Your task to perform on an android device: Open calendar and show me the fourth week of next month Image 0: 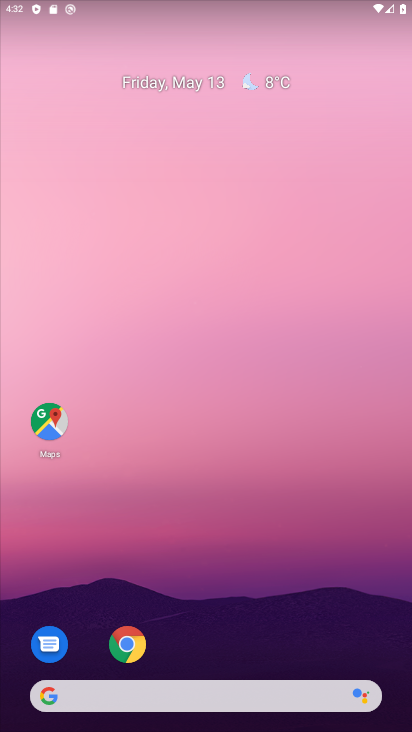
Step 0: drag from (166, 686) to (288, 165)
Your task to perform on an android device: Open calendar and show me the fourth week of next month Image 1: 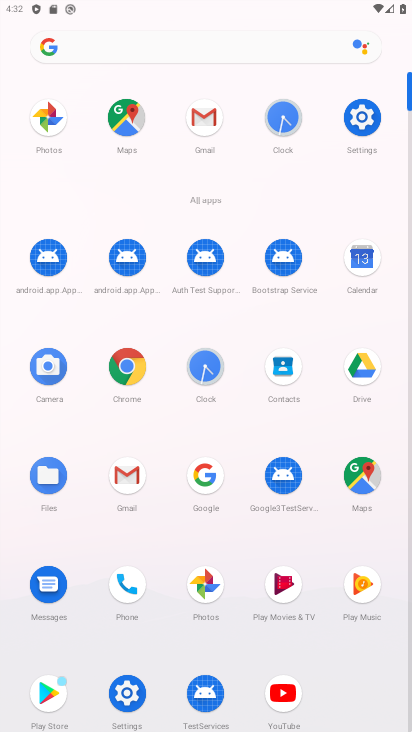
Step 1: click (355, 267)
Your task to perform on an android device: Open calendar and show me the fourth week of next month Image 2: 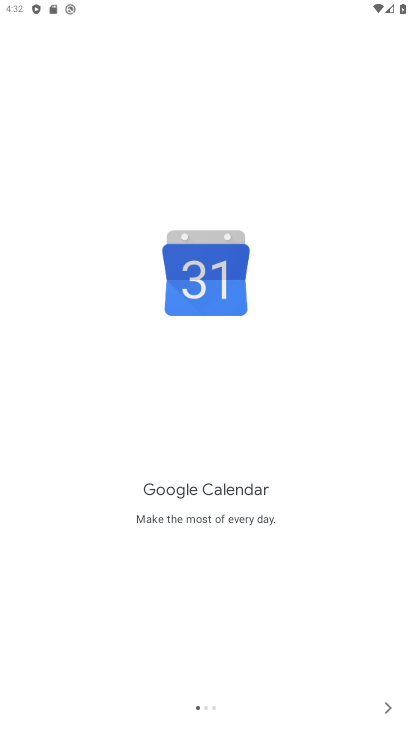
Step 2: click (391, 708)
Your task to perform on an android device: Open calendar and show me the fourth week of next month Image 3: 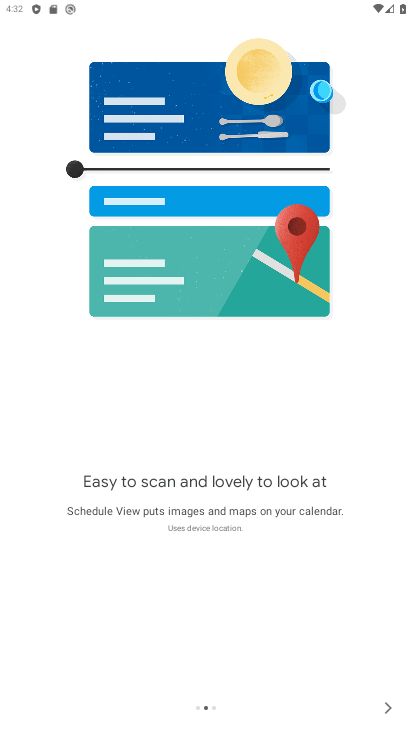
Step 3: click (387, 704)
Your task to perform on an android device: Open calendar and show me the fourth week of next month Image 4: 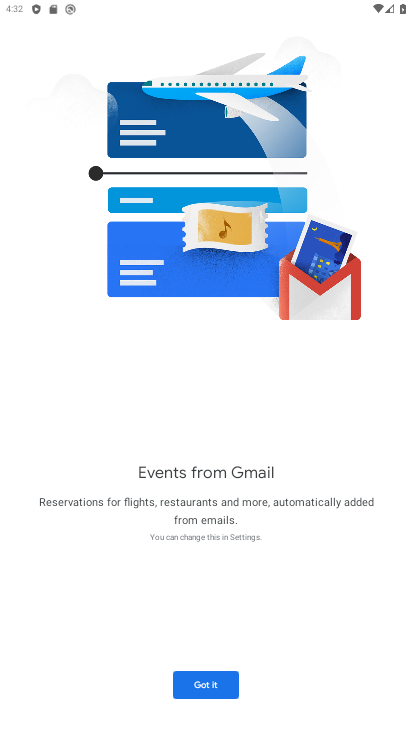
Step 4: click (208, 688)
Your task to perform on an android device: Open calendar and show me the fourth week of next month Image 5: 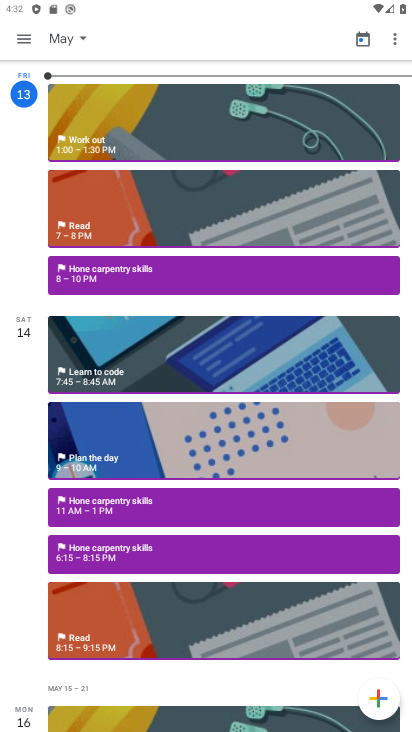
Step 5: click (55, 45)
Your task to perform on an android device: Open calendar and show me the fourth week of next month Image 6: 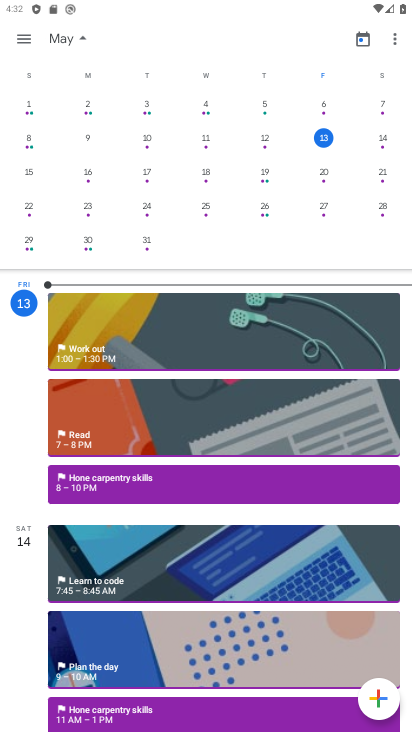
Step 6: drag from (352, 225) to (0, 190)
Your task to perform on an android device: Open calendar and show me the fourth week of next month Image 7: 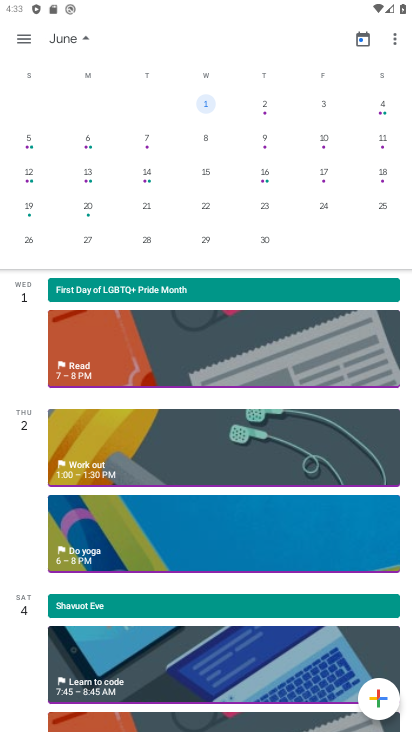
Step 7: click (25, 238)
Your task to perform on an android device: Open calendar and show me the fourth week of next month Image 8: 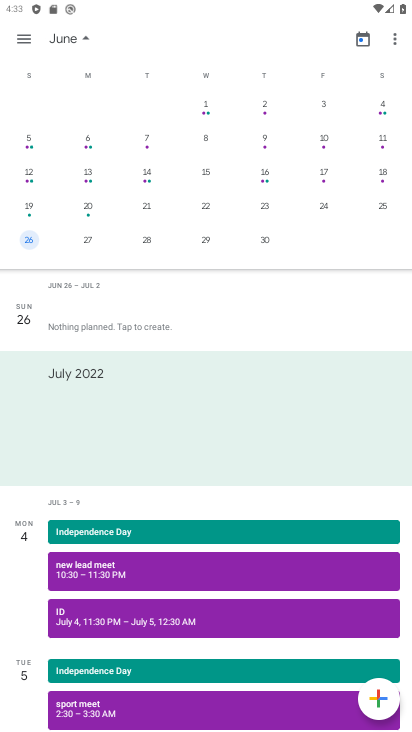
Step 8: click (44, 37)
Your task to perform on an android device: Open calendar and show me the fourth week of next month Image 9: 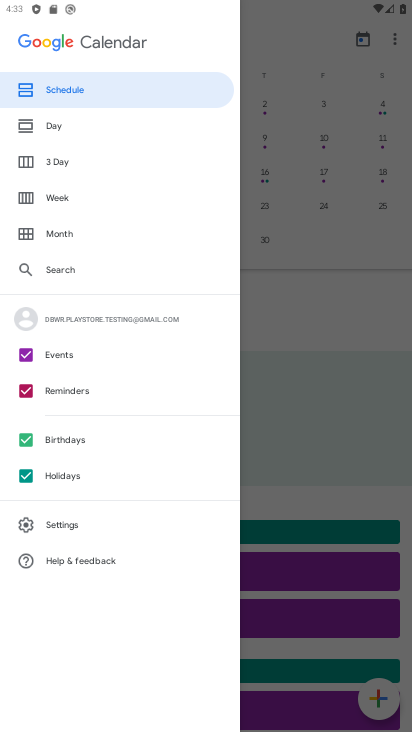
Step 9: click (93, 192)
Your task to perform on an android device: Open calendar and show me the fourth week of next month Image 10: 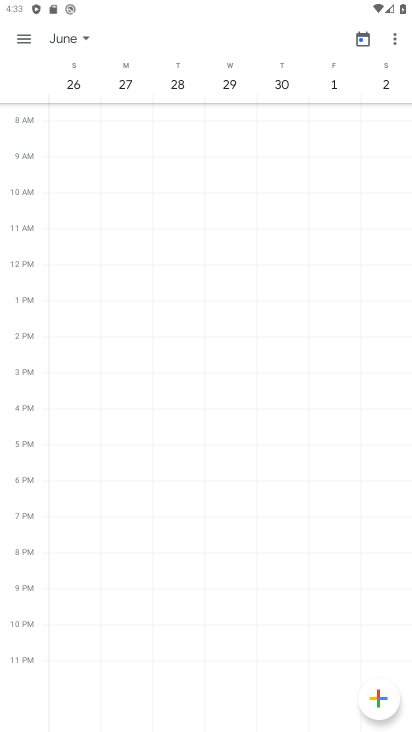
Step 10: task complete